Your task to perform on an android device: change keyboard looks Image 0: 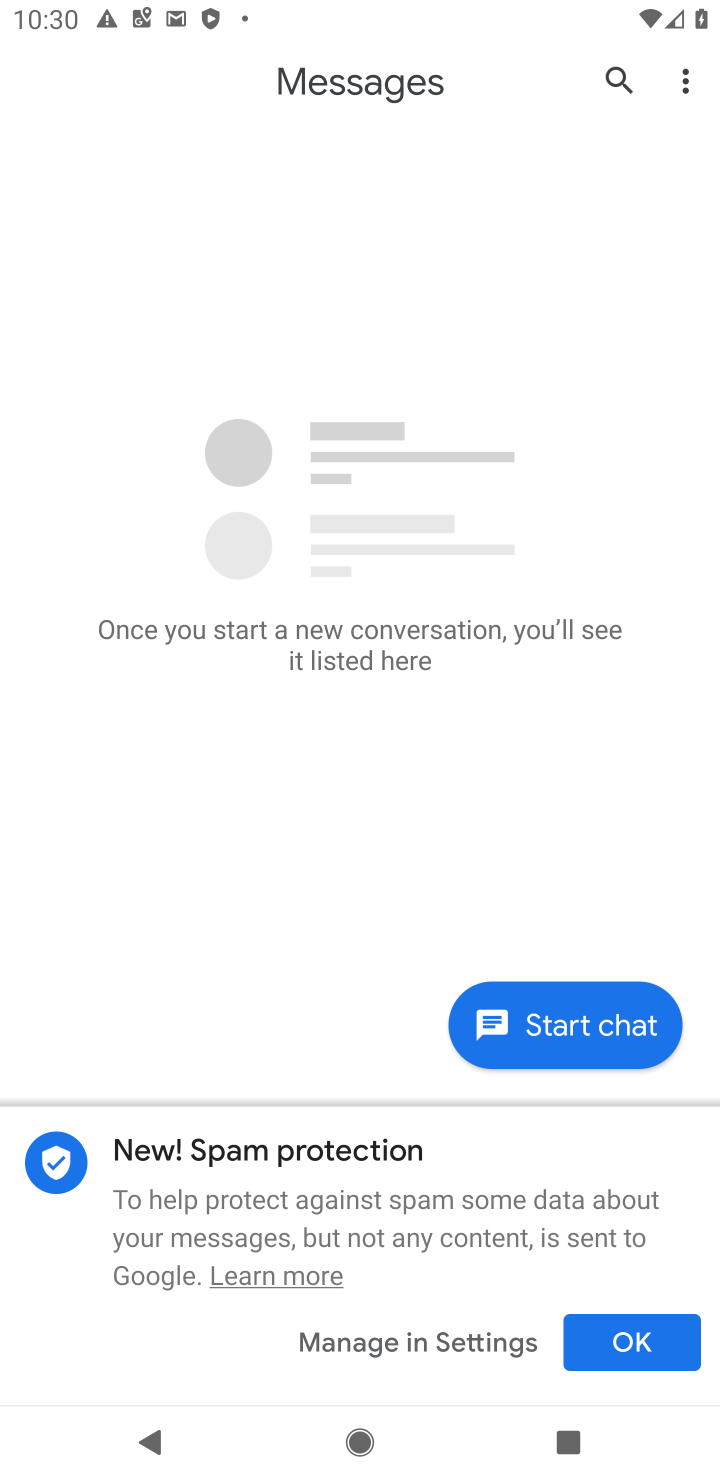
Step 0: drag from (321, 1138) to (457, 556)
Your task to perform on an android device: change keyboard looks Image 1: 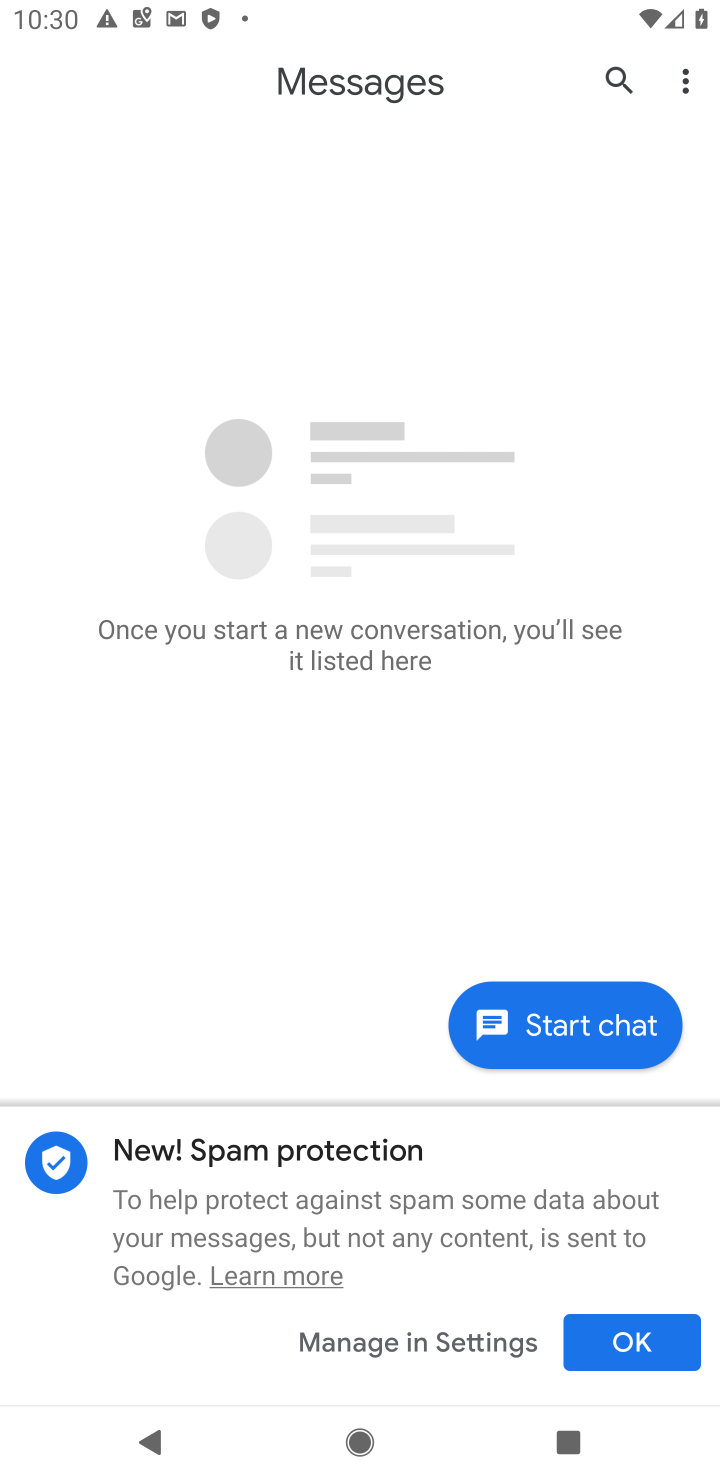
Step 1: press home button
Your task to perform on an android device: change keyboard looks Image 2: 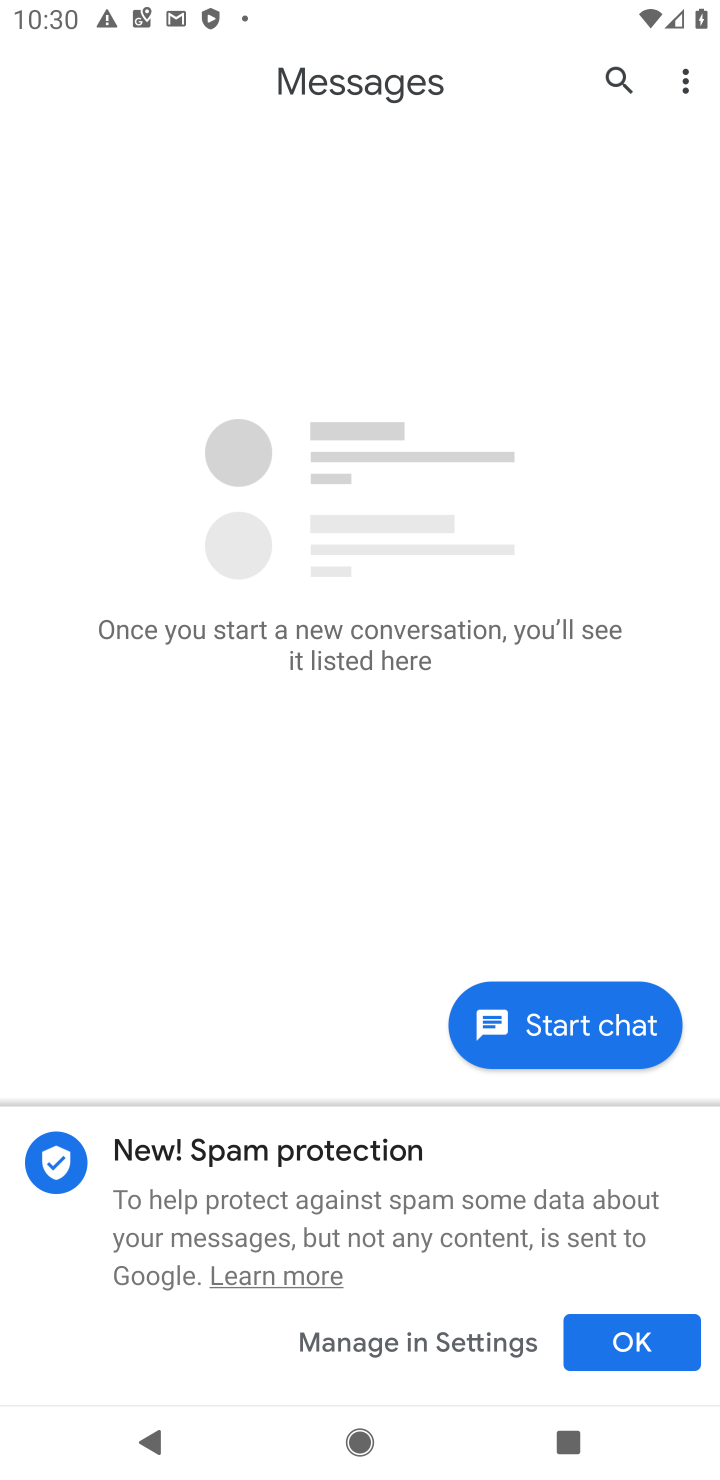
Step 2: press home button
Your task to perform on an android device: change keyboard looks Image 3: 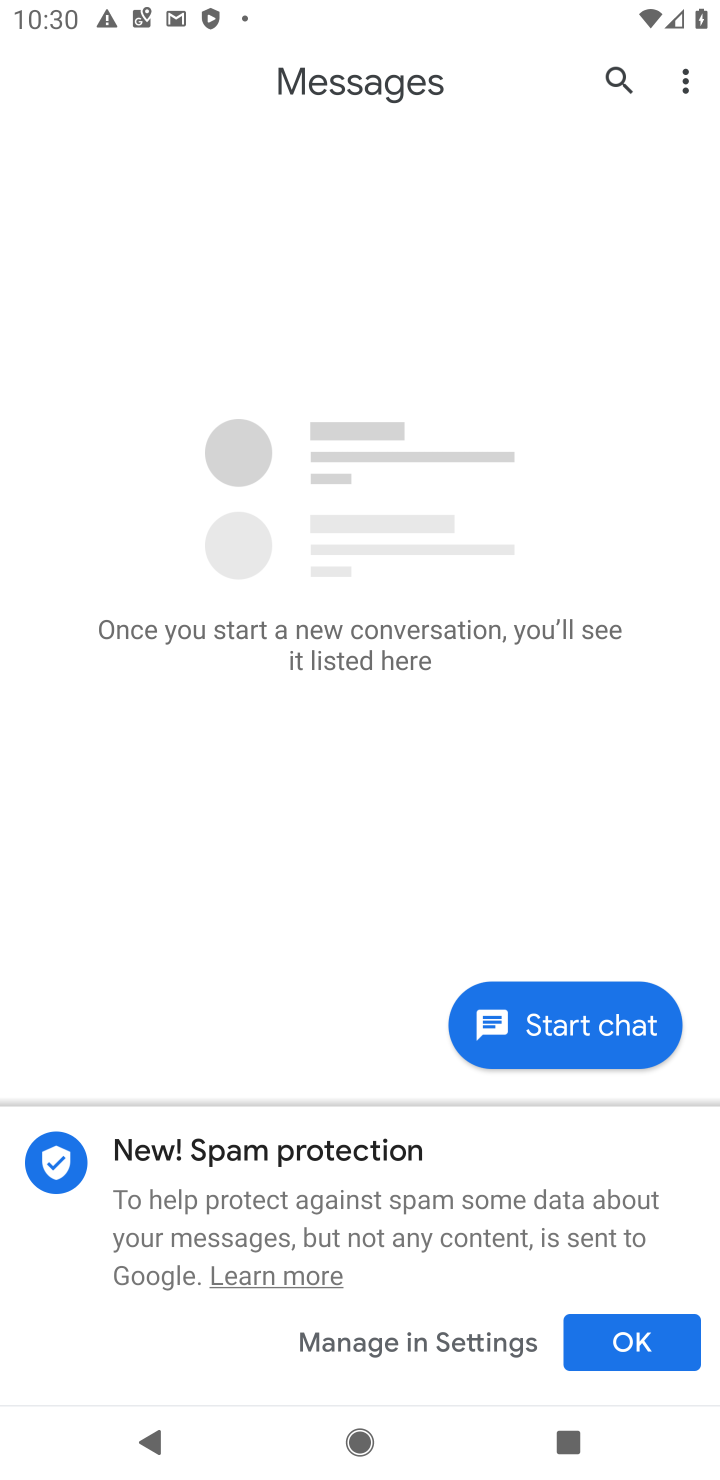
Step 3: click (464, 440)
Your task to perform on an android device: change keyboard looks Image 4: 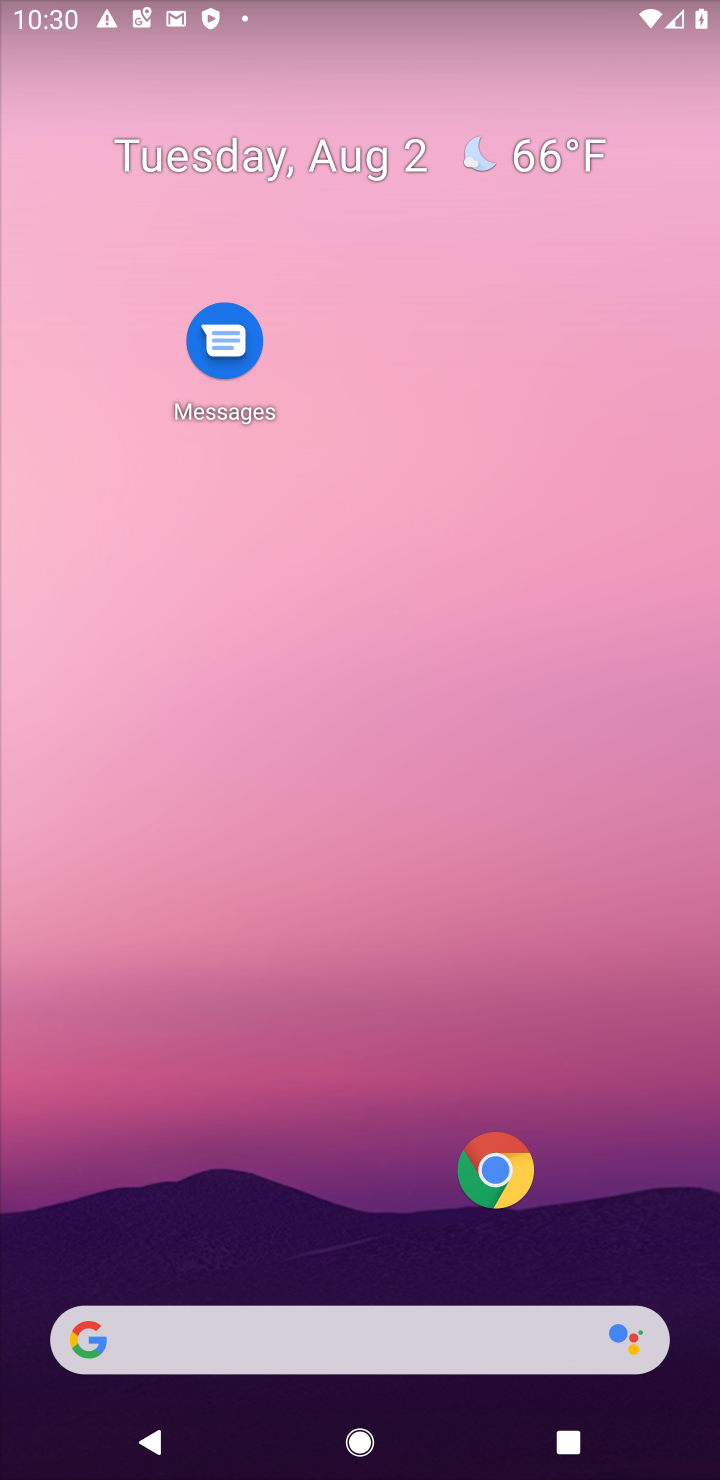
Step 4: drag from (394, 507) to (394, 436)
Your task to perform on an android device: change keyboard looks Image 5: 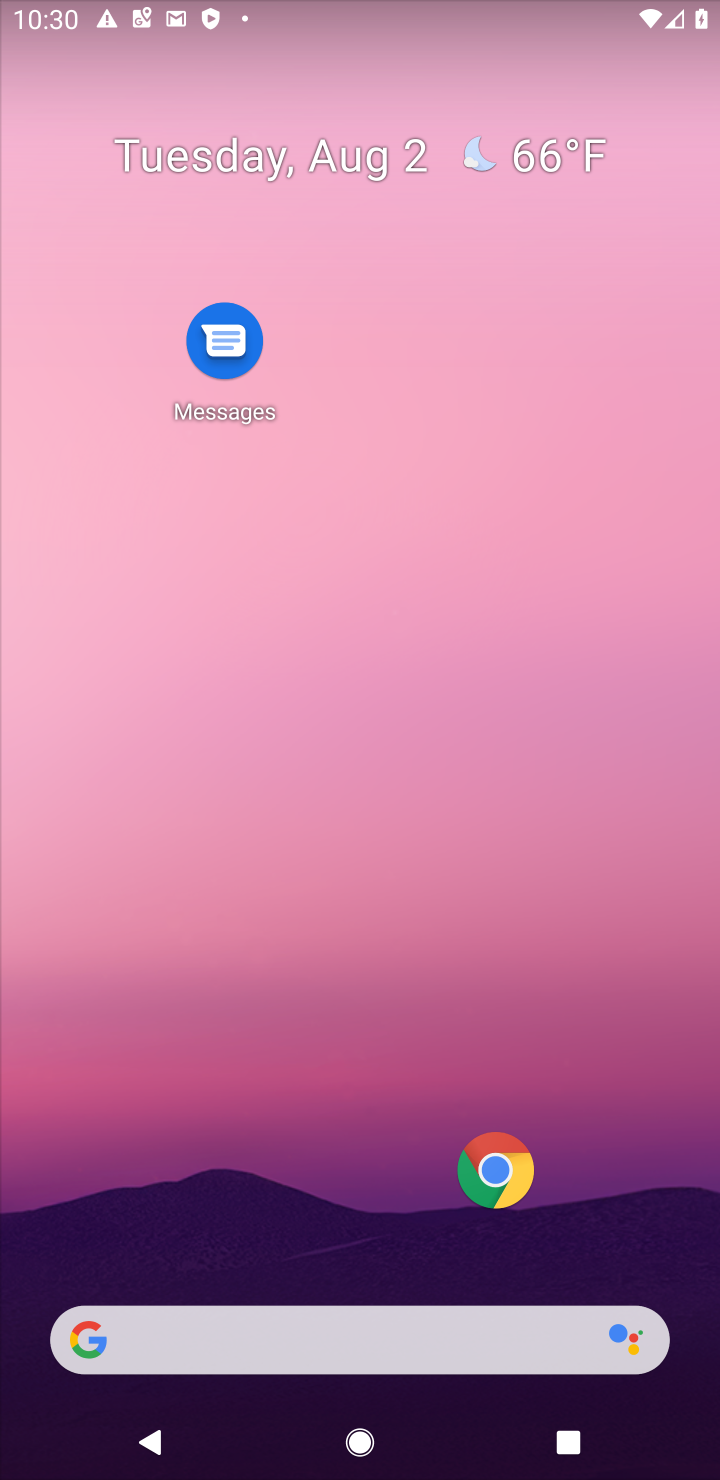
Step 5: drag from (364, 1252) to (468, 858)
Your task to perform on an android device: change keyboard looks Image 6: 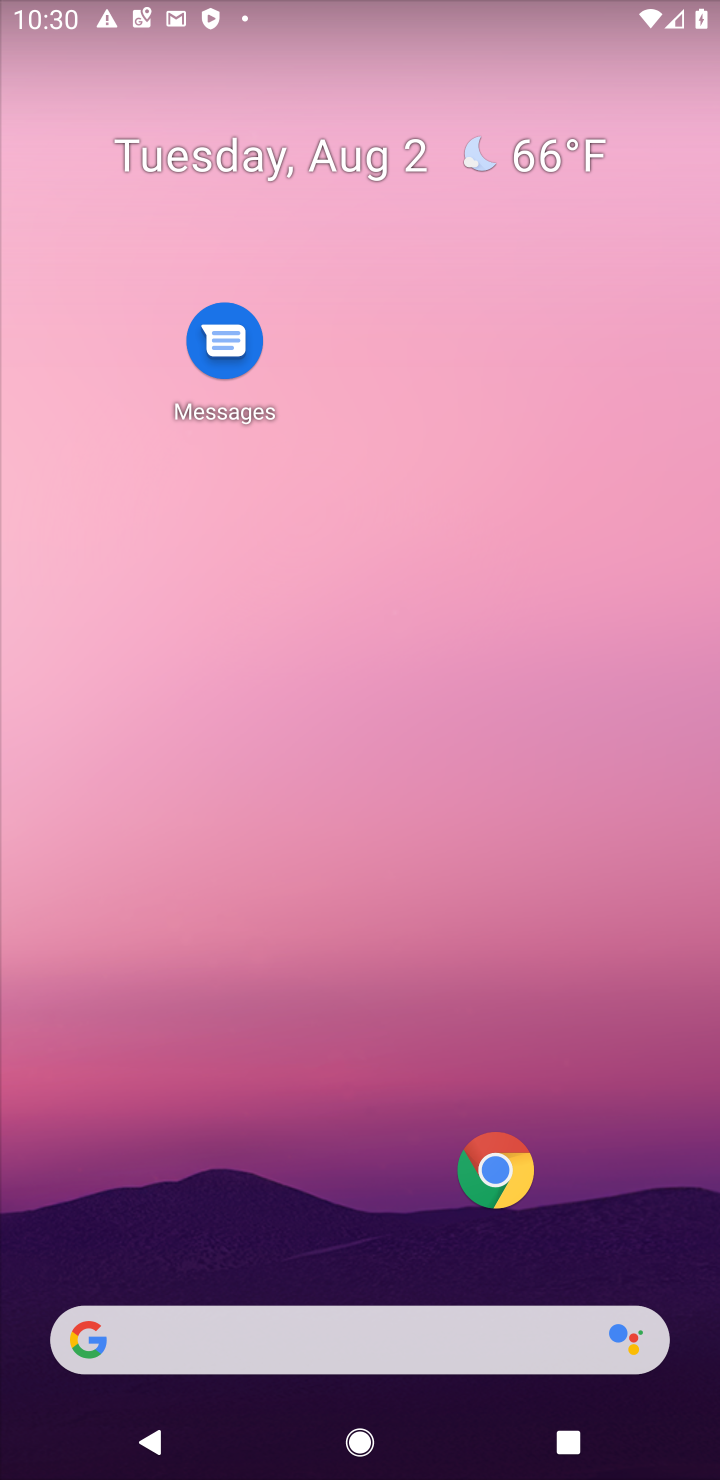
Step 6: drag from (338, 1038) to (513, 312)
Your task to perform on an android device: change keyboard looks Image 7: 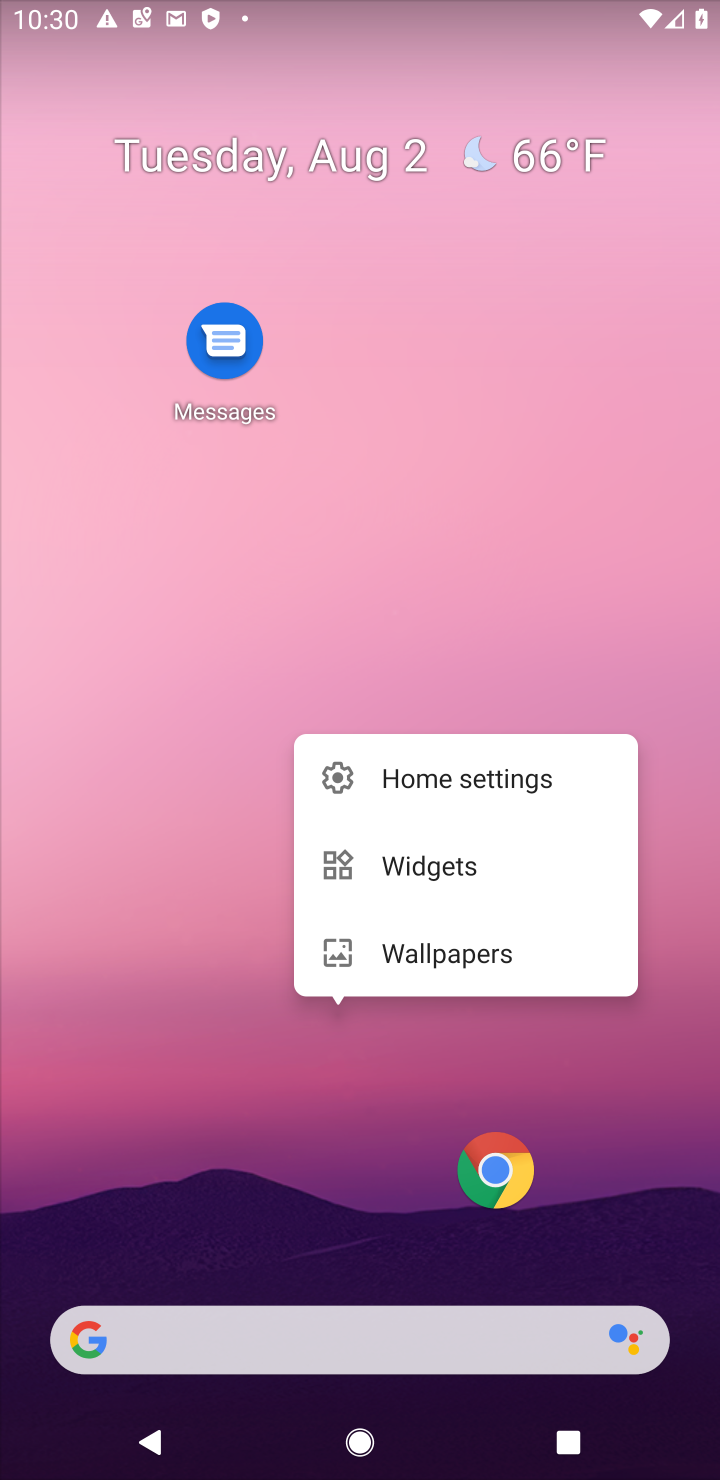
Step 7: click (260, 1152)
Your task to perform on an android device: change keyboard looks Image 8: 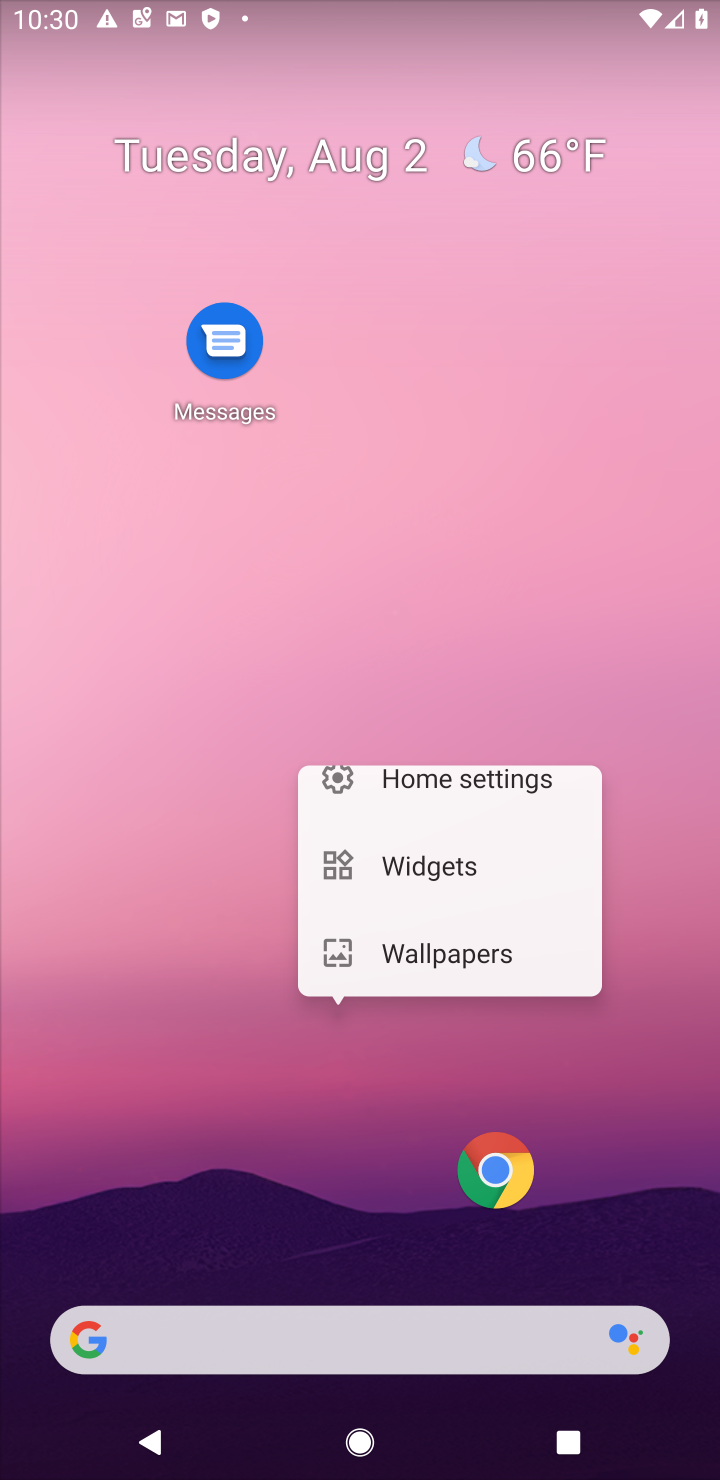
Step 8: drag from (379, 1182) to (435, 261)
Your task to perform on an android device: change keyboard looks Image 9: 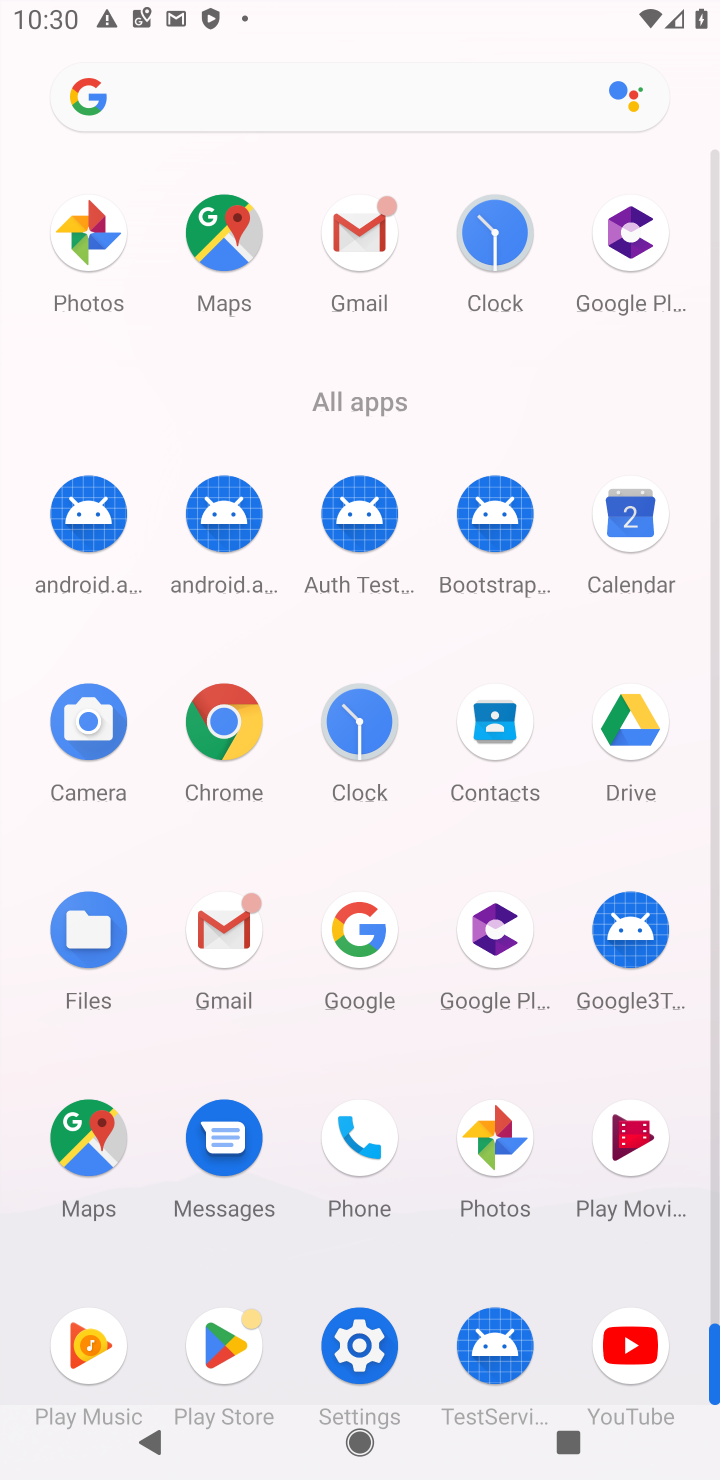
Step 9: click (364, 1351)
Your task to perform on an android device: change keyboard looks Image 10: 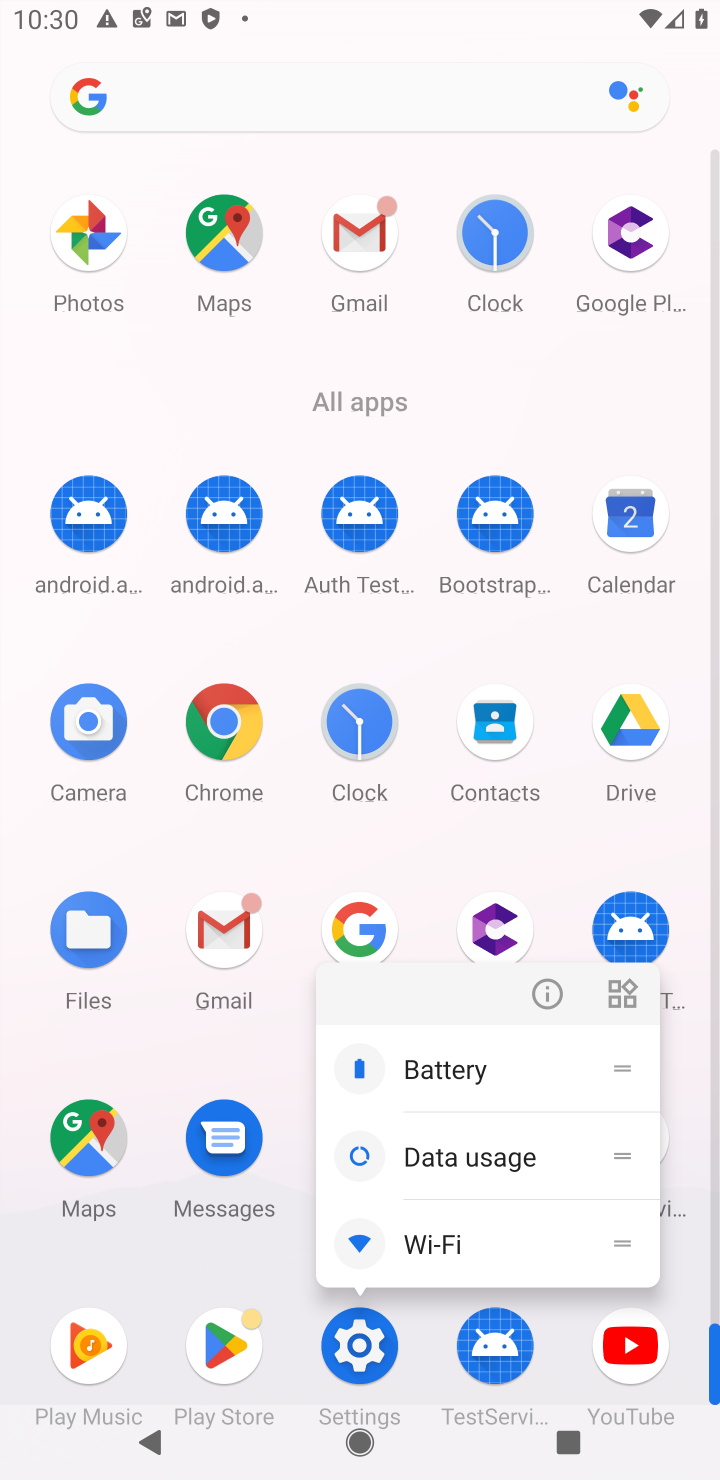
Step 10: click (549, 970)
Your task to perform on an android device: change keyboard looks Image 11: 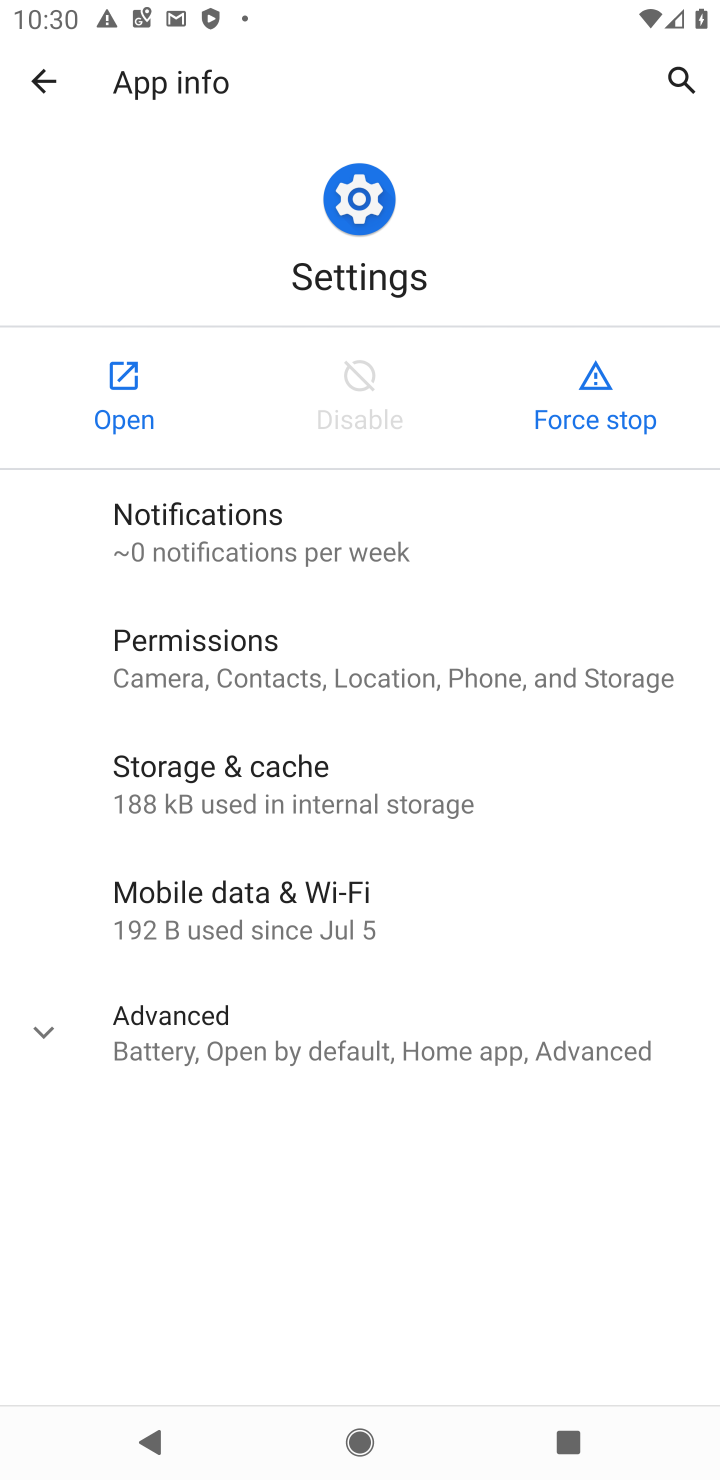
Step 11: click (106, 381)
Your task to perform on an android device: change keyboard looks Image 12: 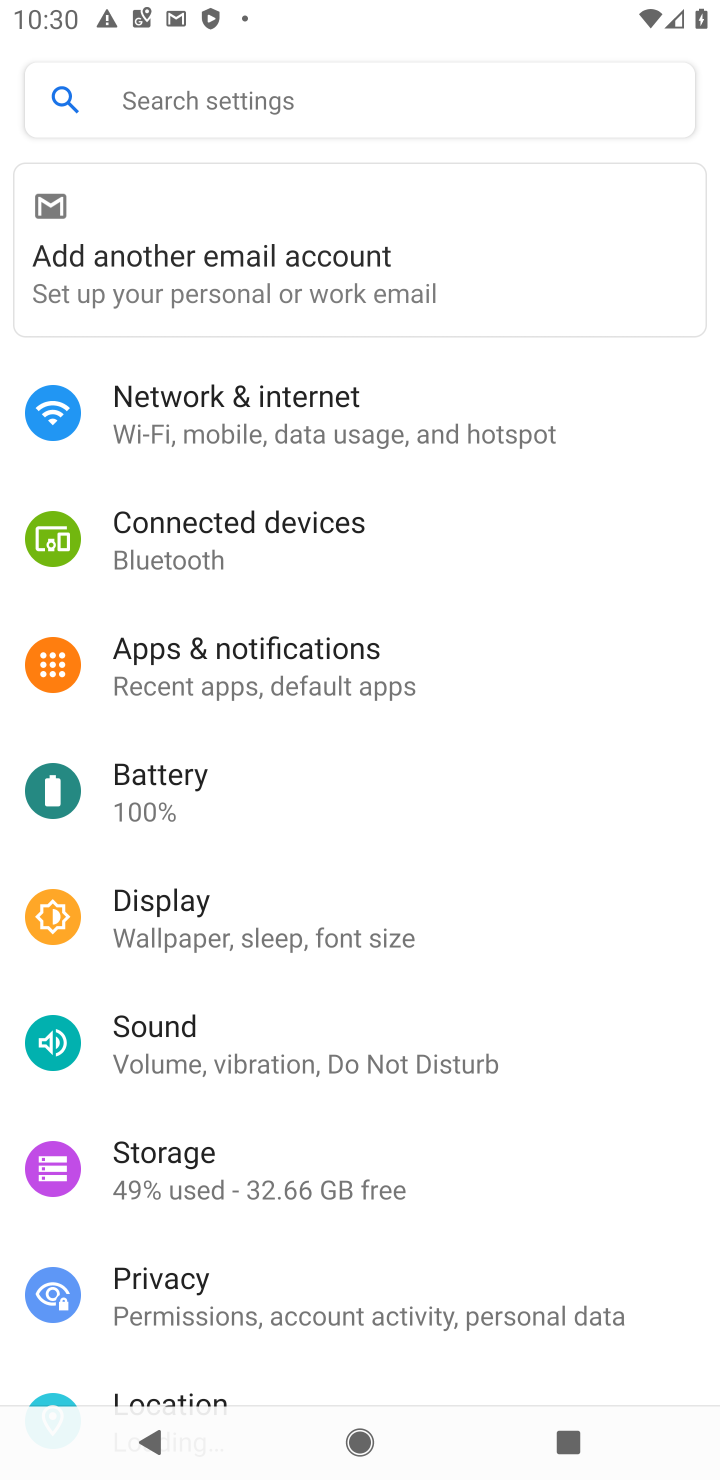
Step 12: drag from (385, 1213) to (500, 385)
Your task to perform on an android device: change keyboard looks Image 13: 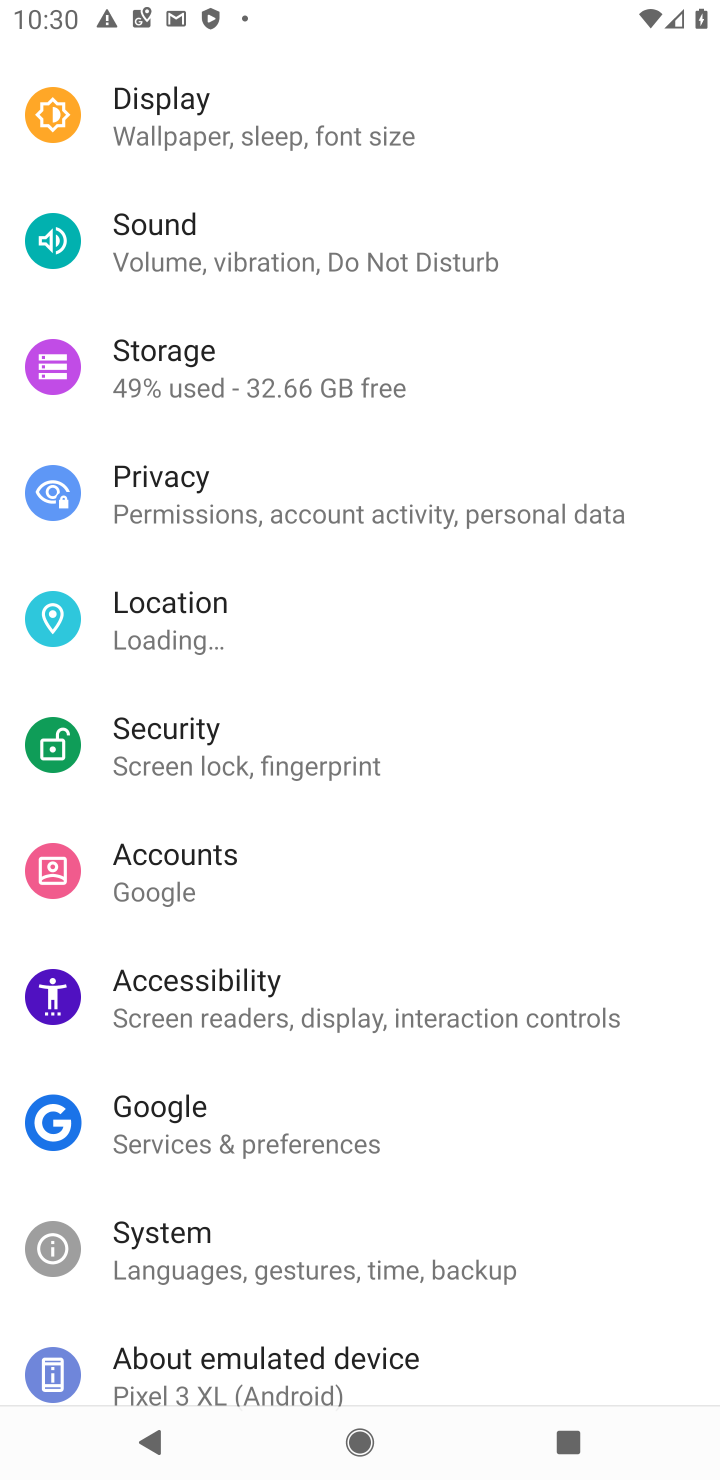
Step 13: drag from (245, 881) to (457, 465)
Your task to perform on an android device: change keyboard looks Image 14: 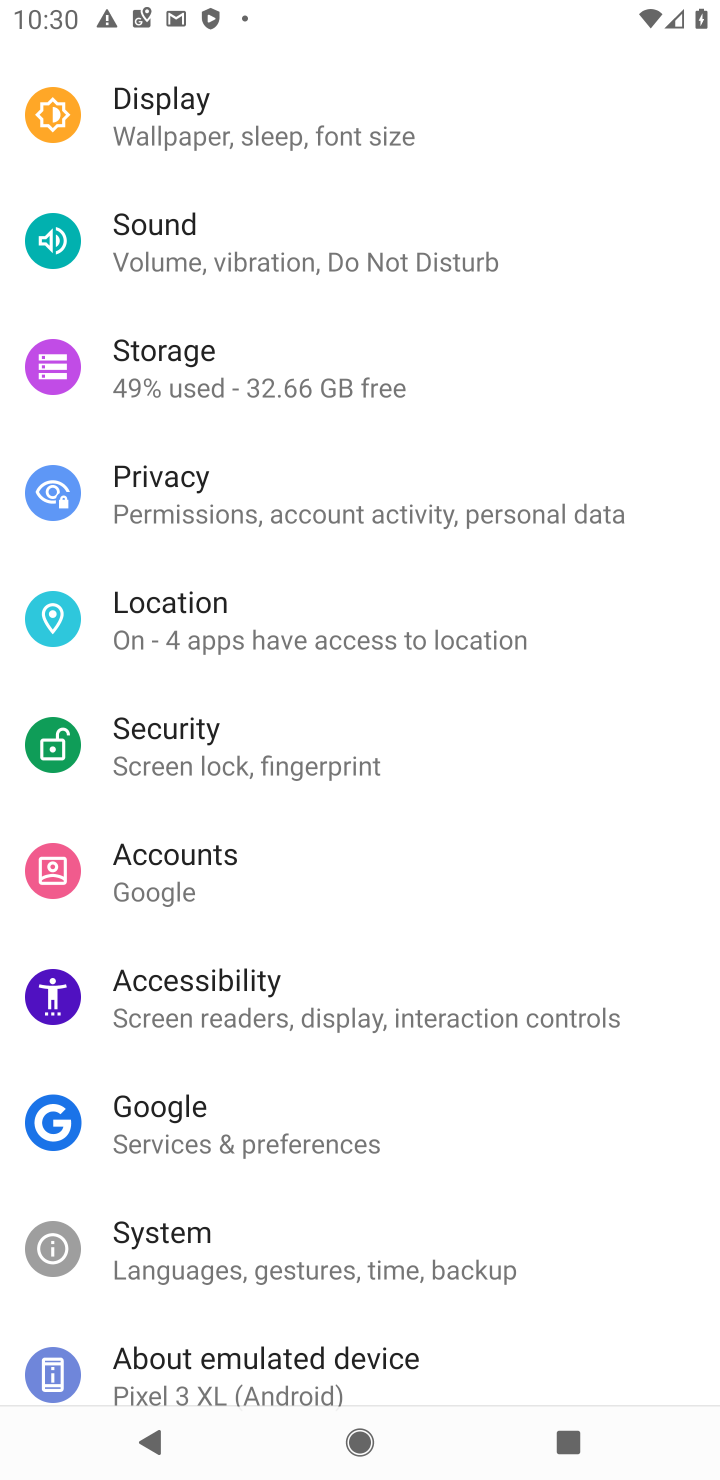
Step 14: click (317, 1253)
Your task to perform on an android device: change keyboard looks Image 15: 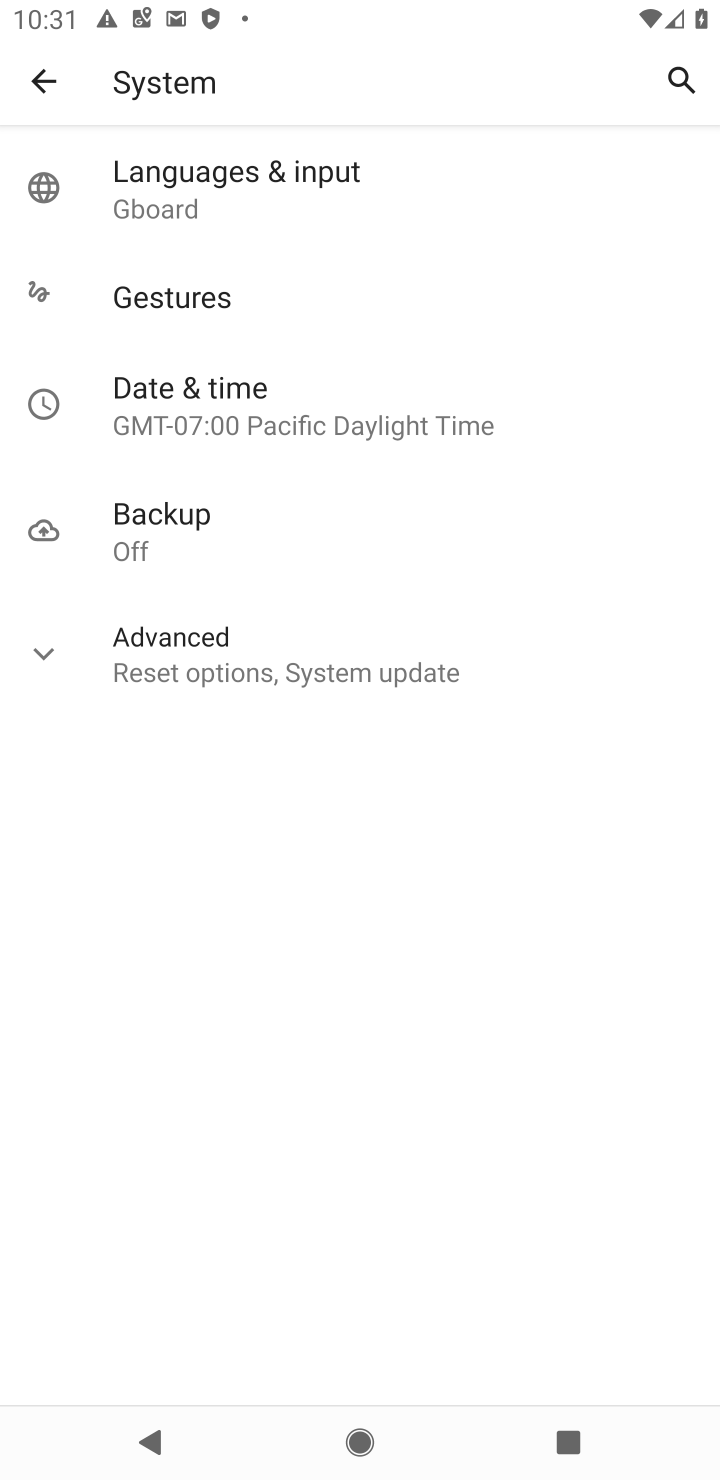
Step 15: click (250, 206)
Your task to perform on an android device: change keyboard looks Image 16: 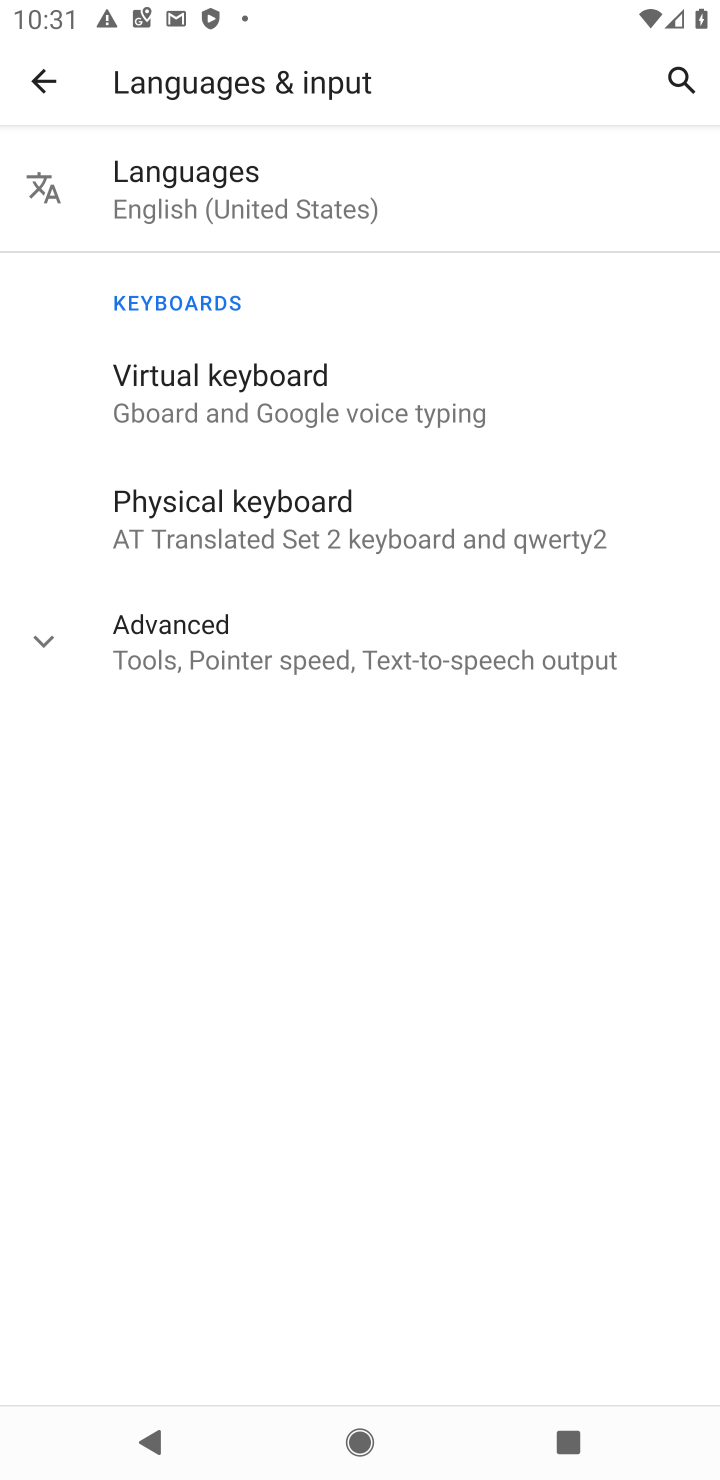
Step 16: click (234, 387)
Your task to perform on an android device: change keyboard looks Image 17: 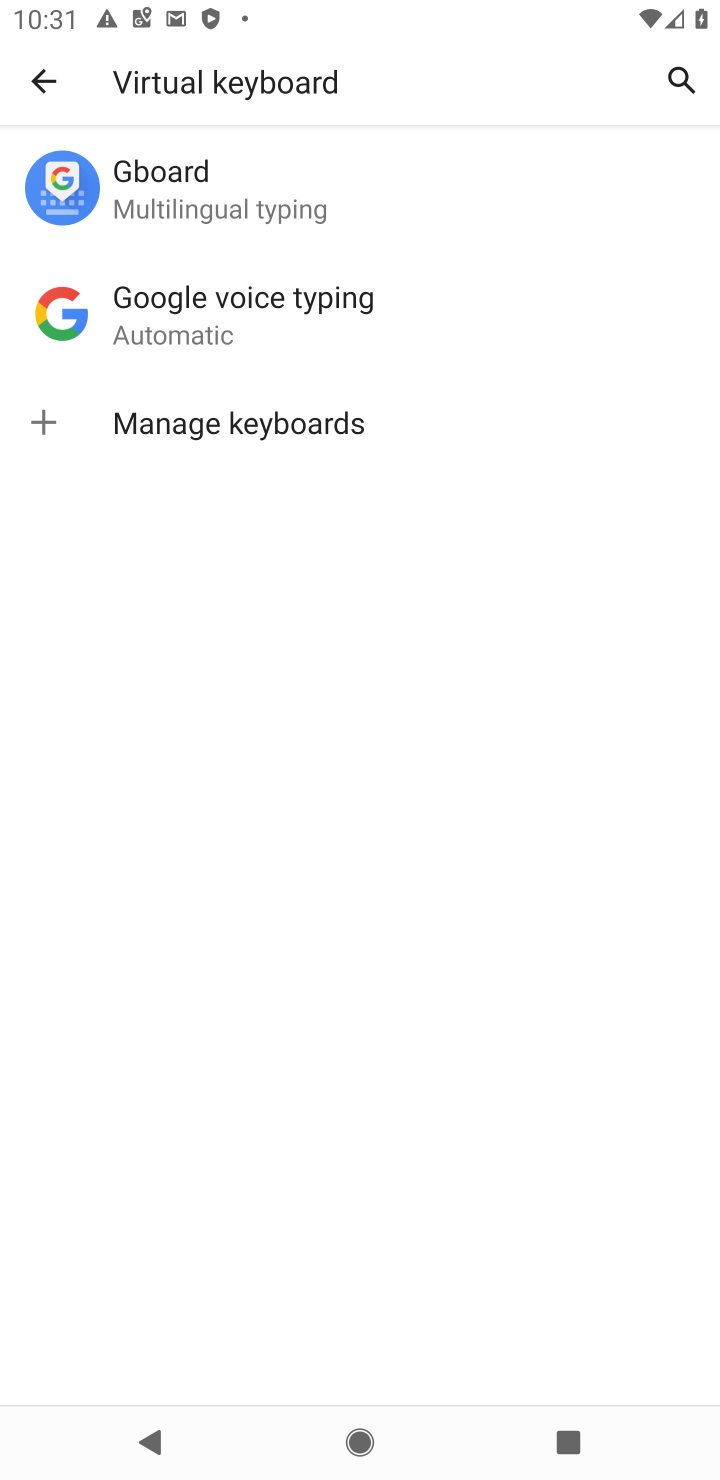
Step 17: click (241, 203)
Your task to perform on an android device: change keyboard looks Image 18: 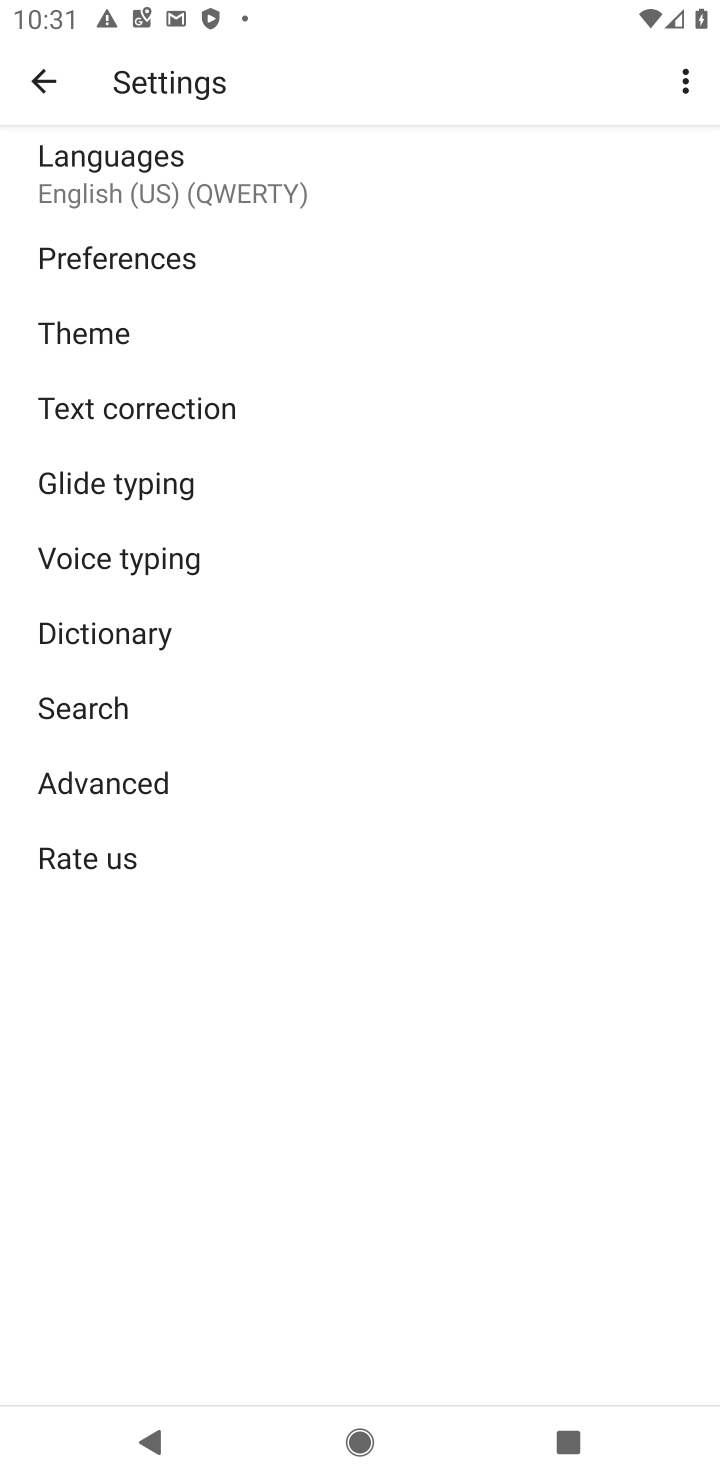
Step 18: click (108, 341)
Your task to perform on an android device: change keyboard looks Image 19: 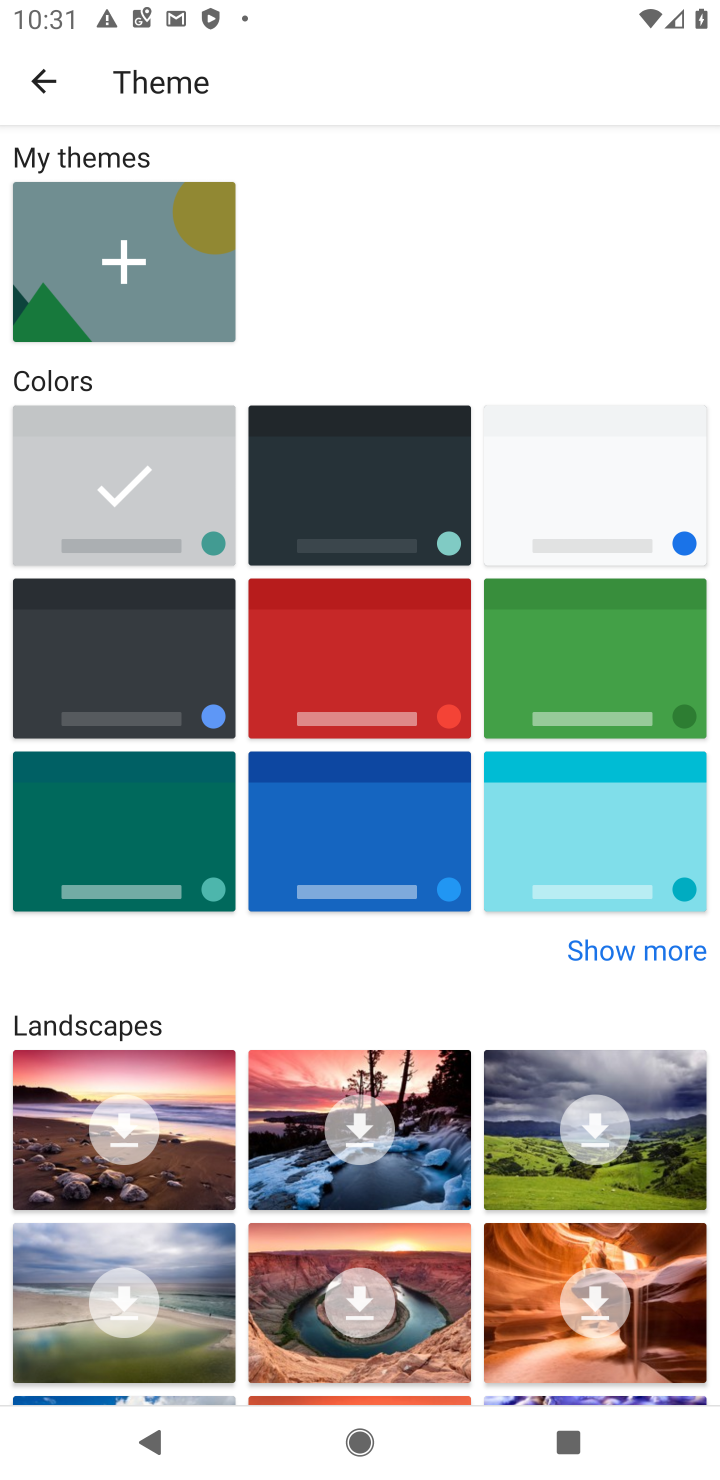
Step 19: click (354, 517)
Your task to perform on an android device: change keyboard looks Image 20: 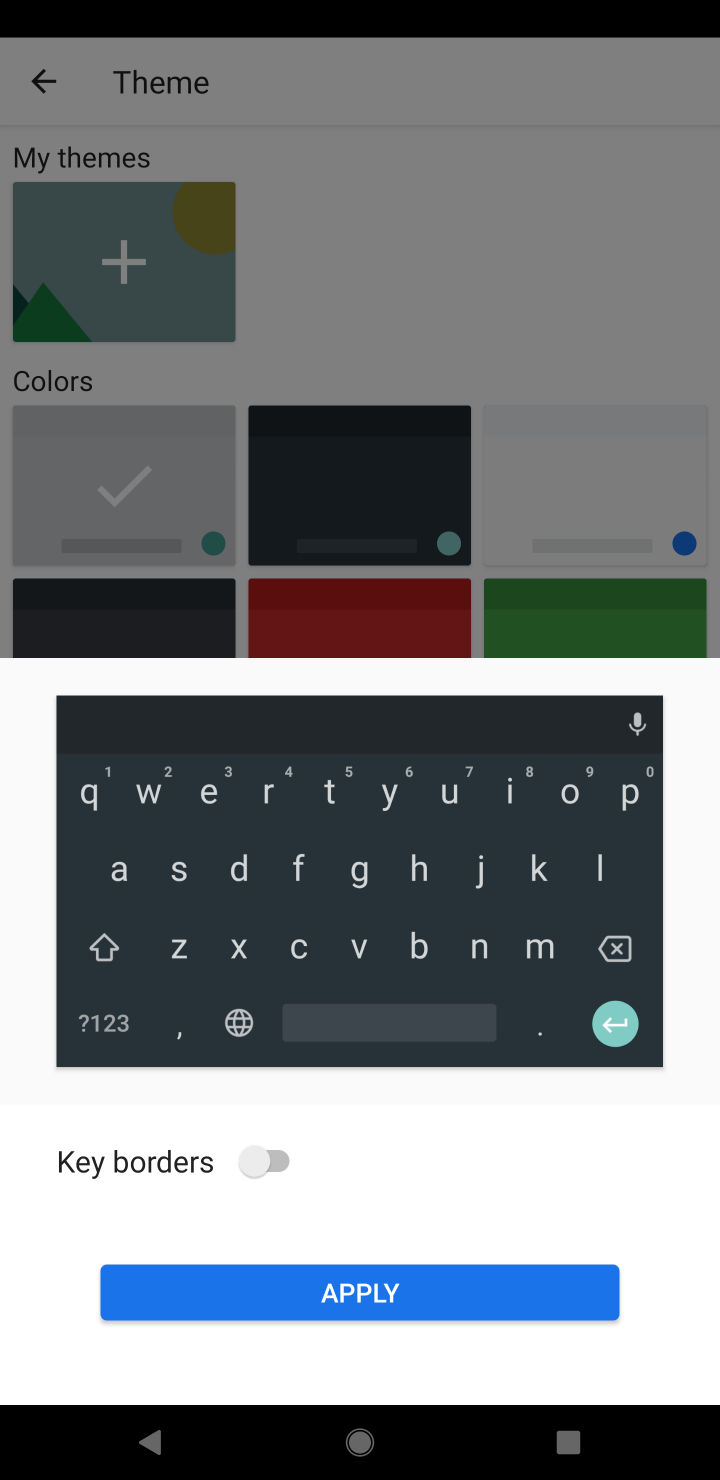
Step 20: click (345, 1284)
Your task to perform on an android device: change keyboard looks Image 21: 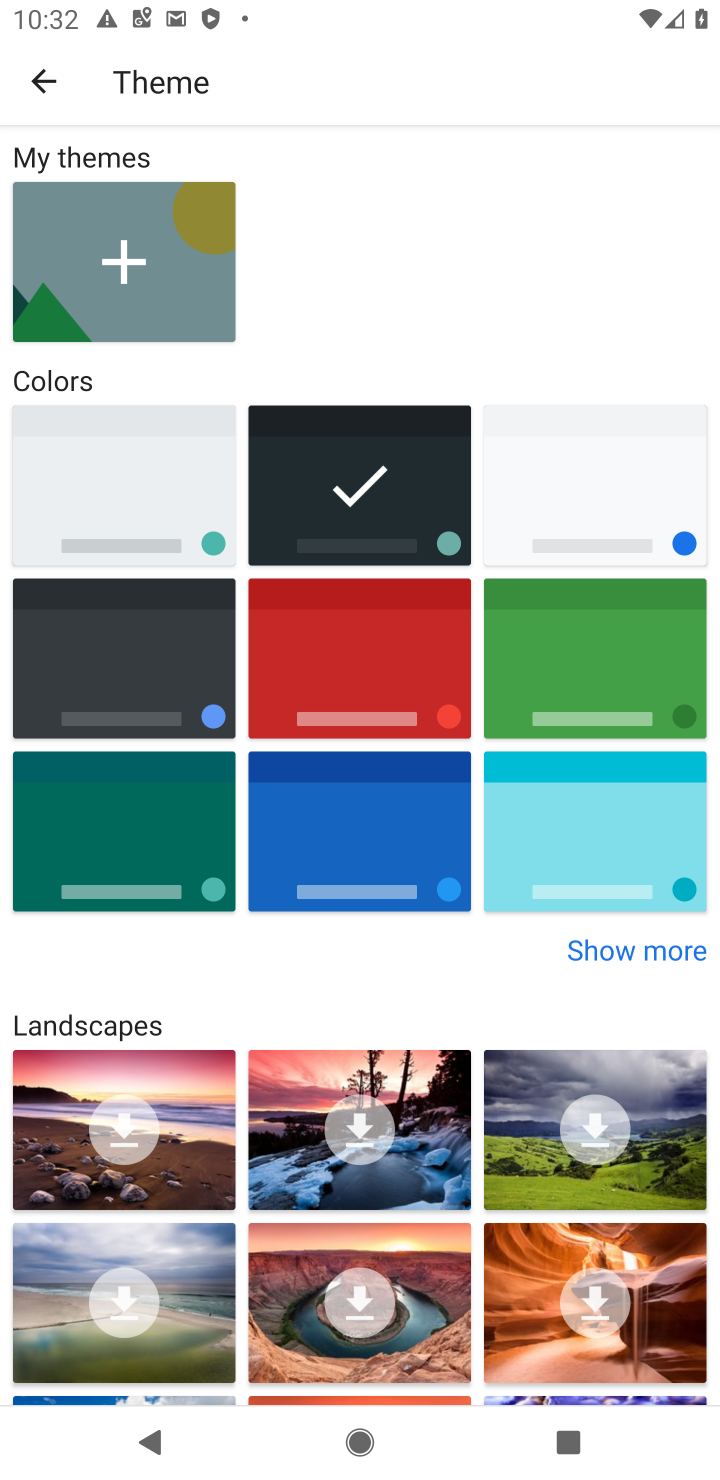
Step 21: task complete